Your task to perform on an android device: Search for sushi restaurants on Maps Image 0: 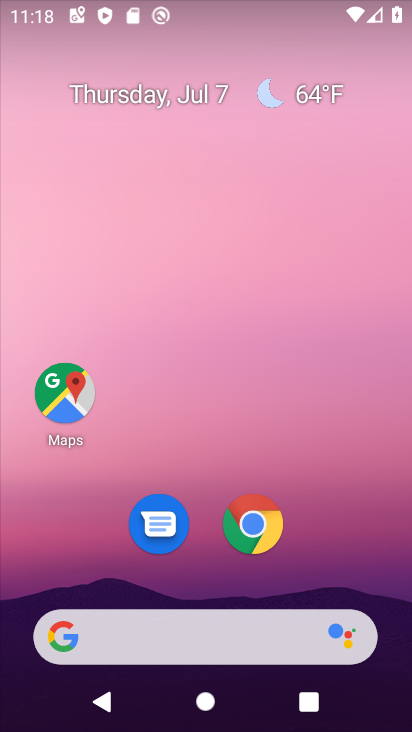
Step 0: click (72, 390)
Your task to perform on an android device: Search for sushi restaurants on Maps Image 1: 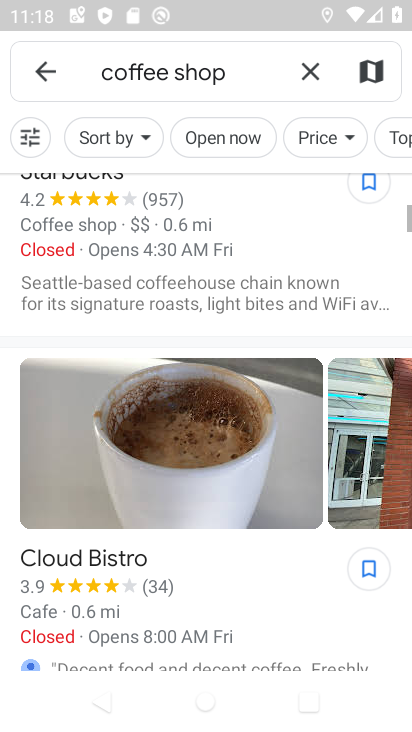
Step 1: click (311, 69)
Your task to perform on an android device: Search for sushi restaurants on Maps Image 2: 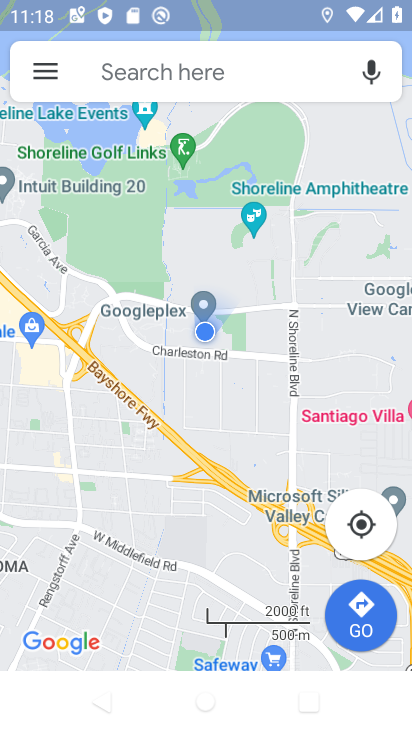
Step 2: click (262, 78)
Your task to perform on an android device: Search for sushi restaurants on Maps Image 3: 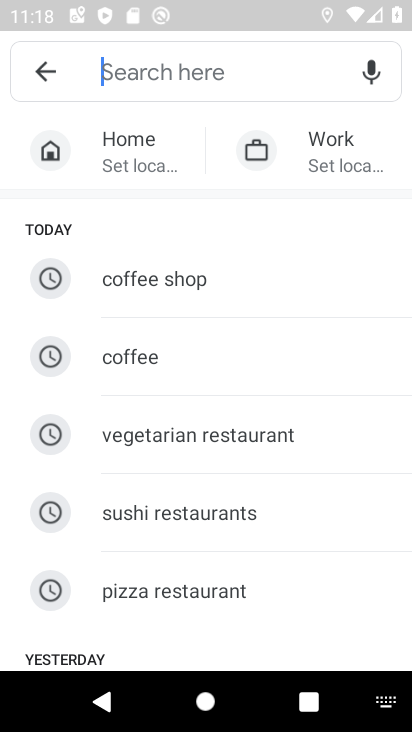
Step 3: click (198, 504)
Your task to perform on an android device: Search for sushi restaurants on Maps Image 4: 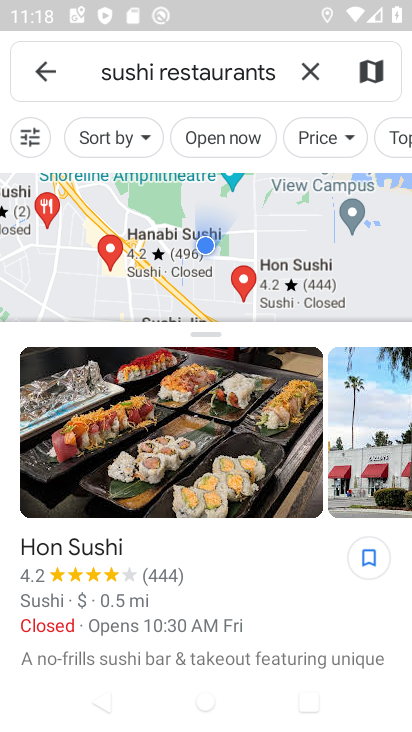
Step 4: task complete